Your task to perform on an android device: check google app version Image 0: 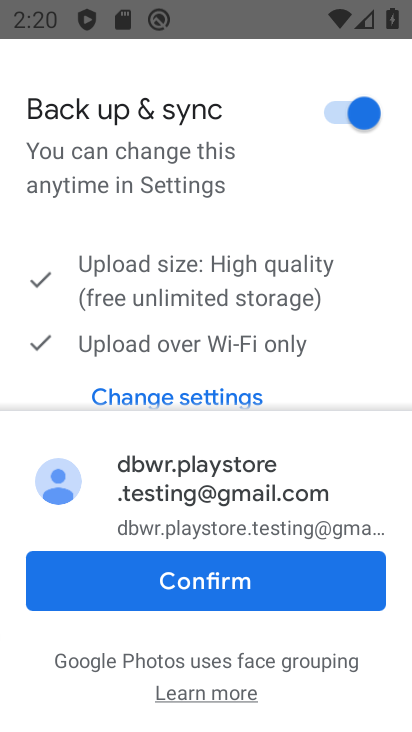
Step 0: press home button
Your task to perform on an android device: check google app version Image 1: 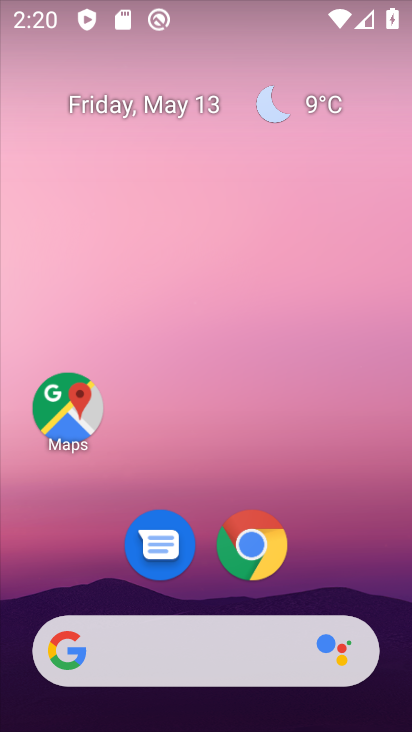
Step 1: drag from (358, 562) to (338, 138)
Your task to perform on an android device: check google app version Image 2: 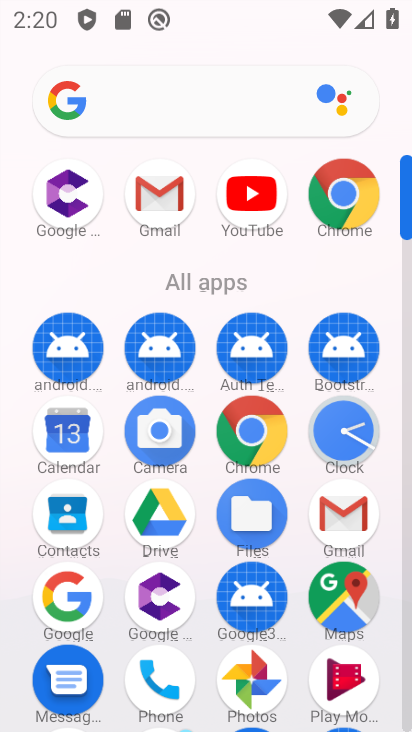
Step 2: click (49, 606)
Your task to perform on an android device: check google app version Image 3: 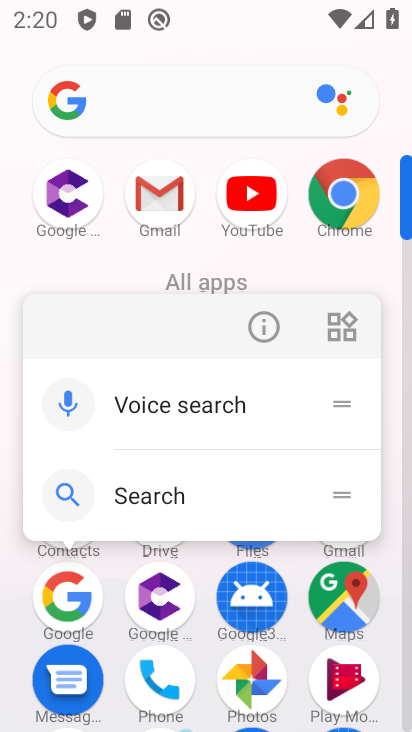
Step 3: click (267, 317)
Your task to perform on an android device: check google app version Image 4: 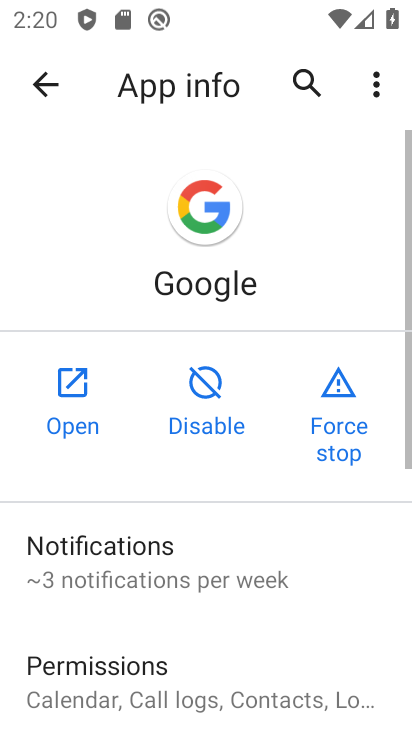
Step 4: drag from (264, 659) to (300, 143)
Your task to perform on an android device: check google app version Image 5: 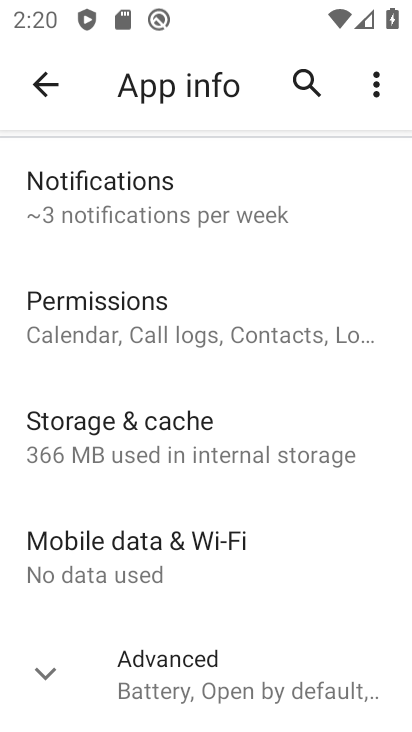
Step 5: drag from (311, 588) to (332, 203)
Your task to perform on an android device: check google app version Image 6: 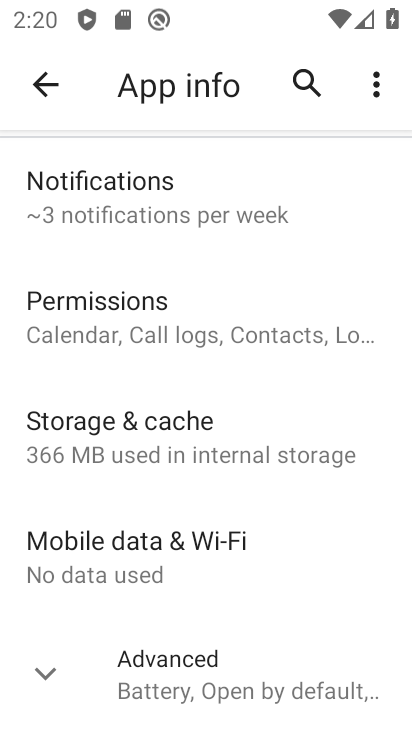
Step 6: click (201, 691)
Your task to perform on an android device: check google app version Image 7: 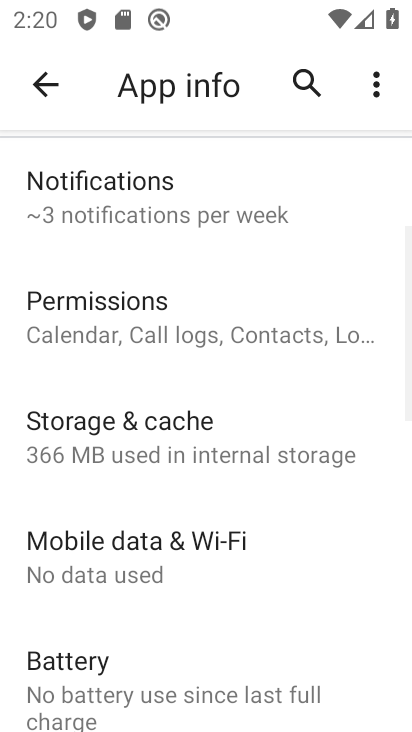
Step 7: task complete